Your task to perform on an android device: choose inbox layout in the gmail app Image 0: 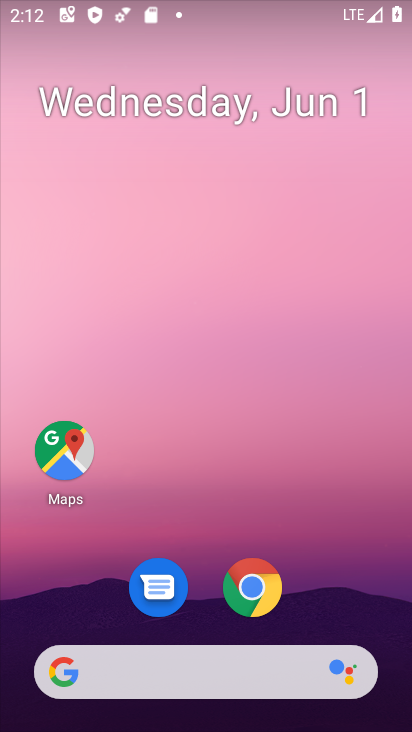
Step 0: drag from (223, 695) to (185, 326)
Your task to perform on an android device: choose inbox layout in the gmail app Image 1: 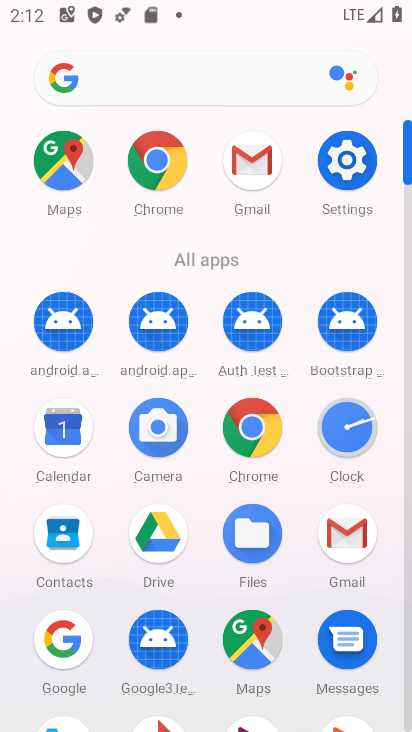
Step 1: click (266, 173)
Your task to perform on an android device: choose inbox layout in the gmail app Image 2: 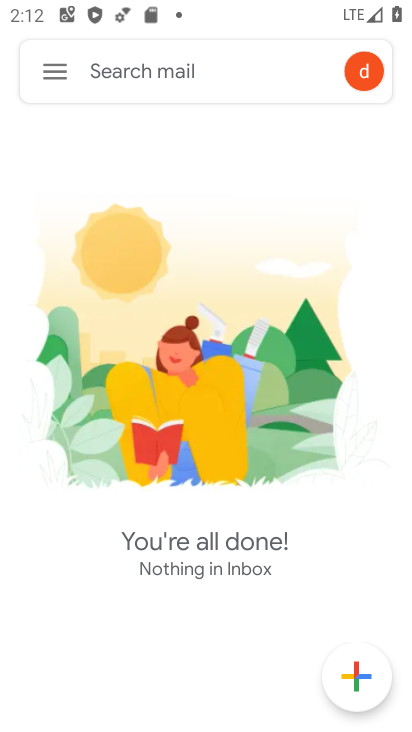
Step 2: click (65, 86)
Your task to perform on an android device: choose inbox layout in the gmail app Image 3: 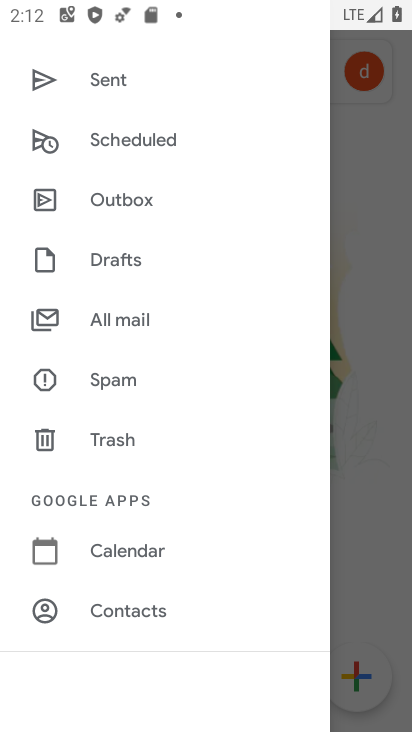
Step 3: drag from (131, 583) to (87, 48)
Your task to perform on an android device: choose inbox layout in the gmail app Image 4: 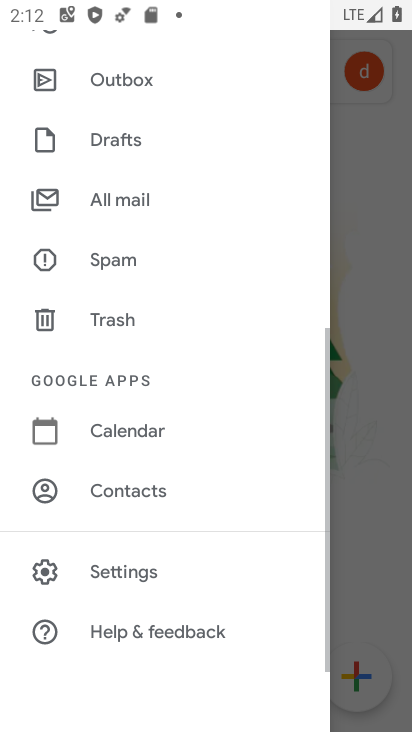
Step 4: click (112, 558)
Your task to perform on an android device: choose inbox layout in the gmail app Image 5: 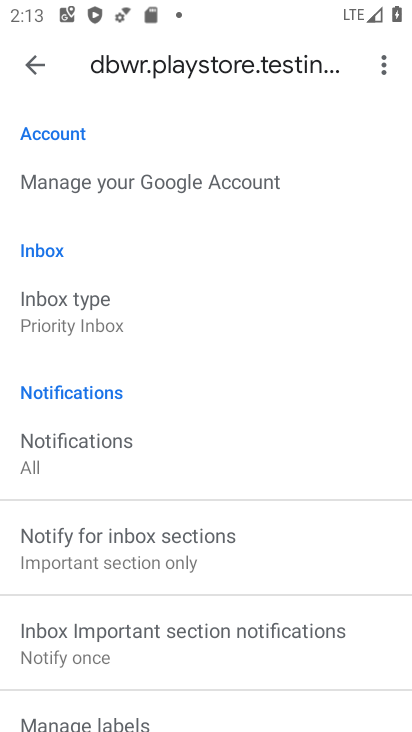
Step 5: click (63, 294)
Your task to perform on an android device: choose inbox layout in the gmail app Image 6: 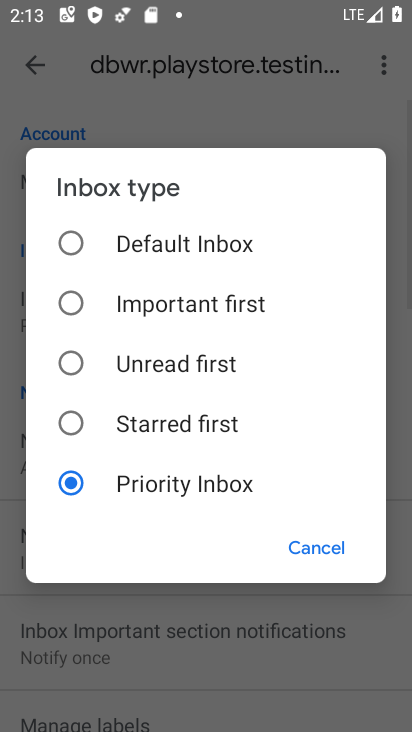
Step 6: click (131, 239)
Your task to perform on an android device: choose inbox layout in the gmail app Image 7: 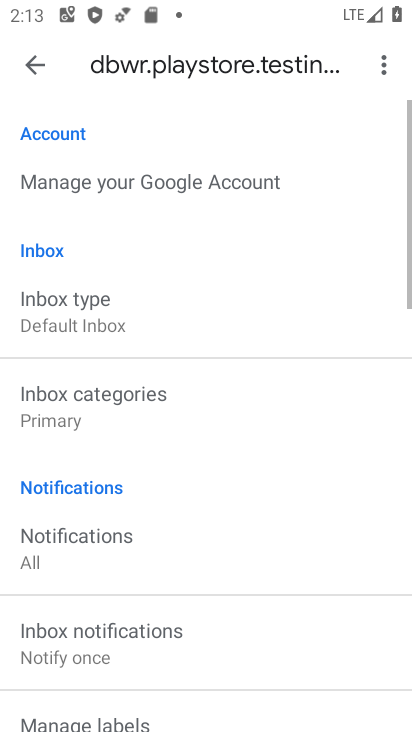
Step 7: task complete